Your task to perform on an android device: install app "Lyft - Rideshare, Bikes, Scooters & Transit" Image 0: 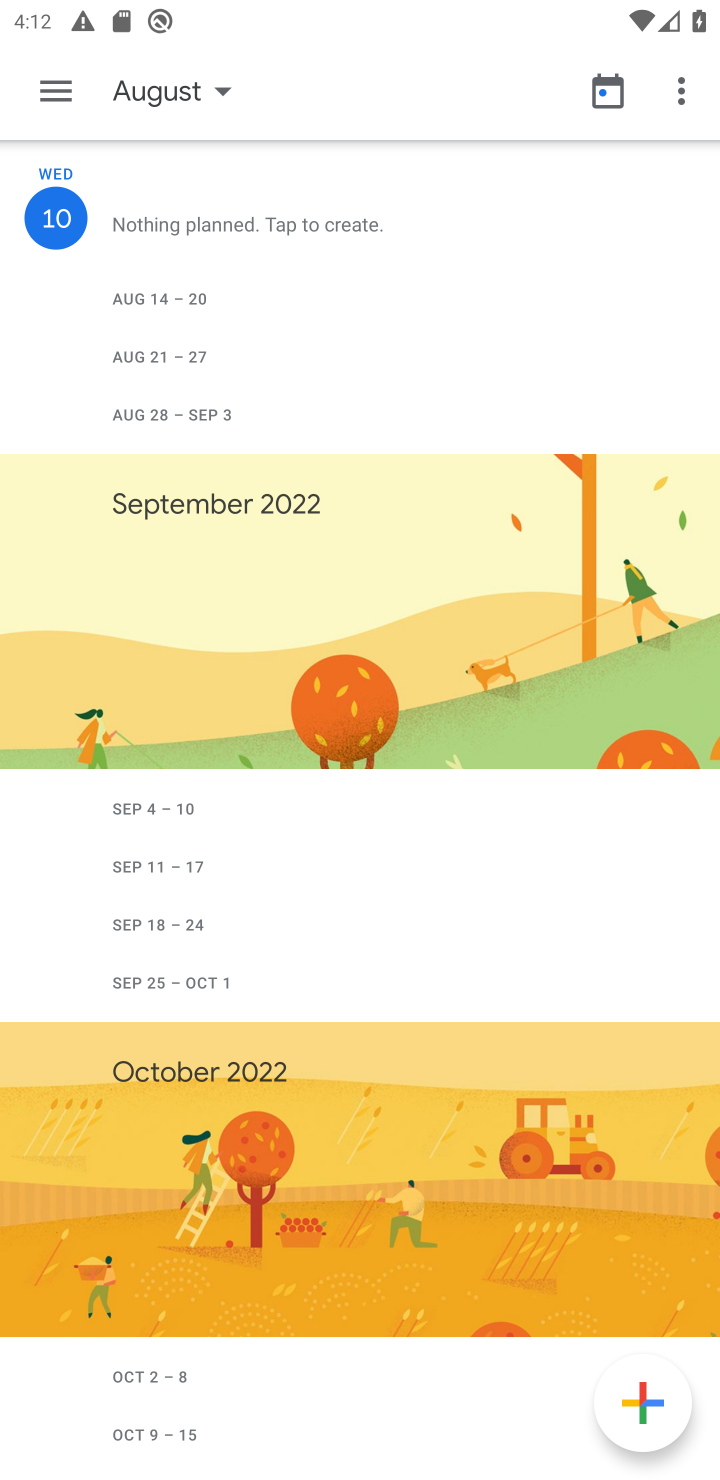
Step 0: press home button
Your task to perform on an android device: install app "Lyft - Rideshare, Bikes, Scooters & Transit" Image 1: 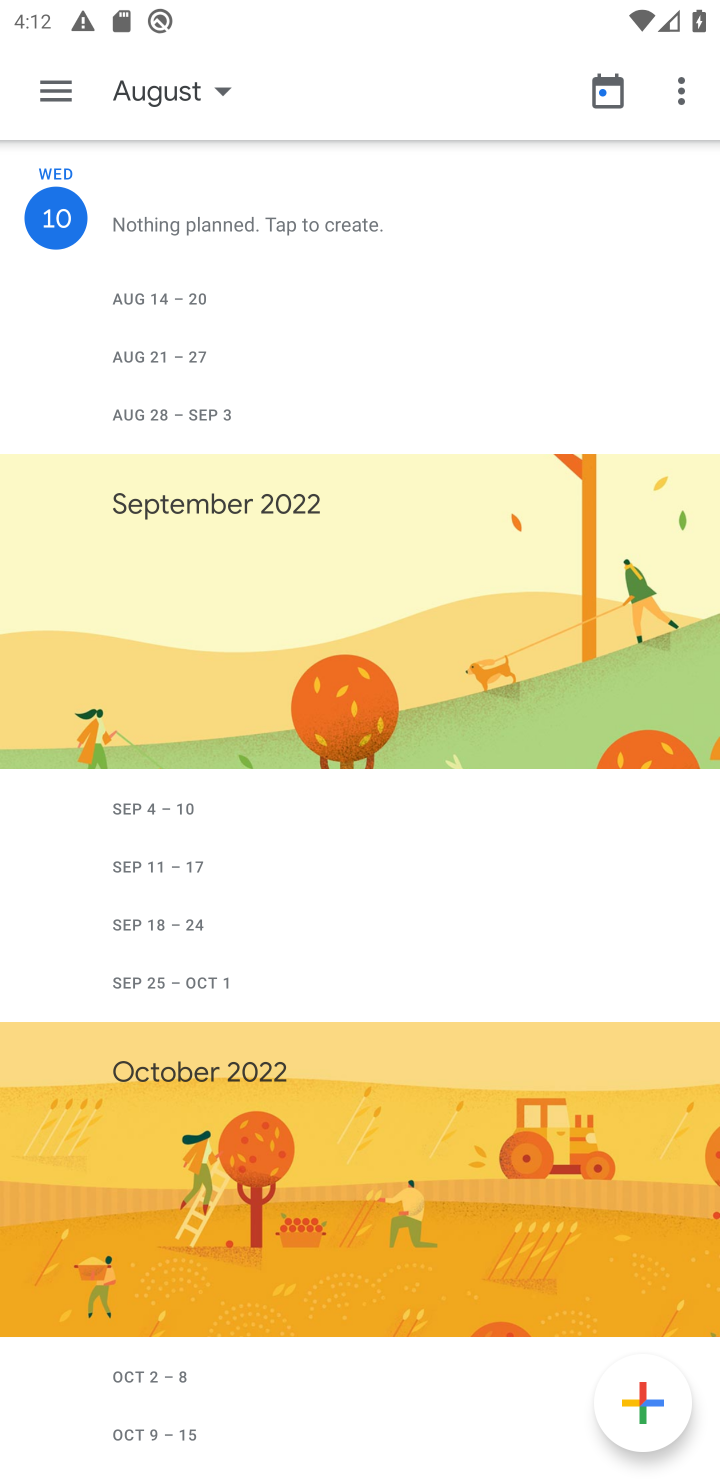
Step 1: click (30, 77)
Your task to perform on an android device: install app "Lyft - Rideshare, Bikes, Scooters & Transit" Image 2: 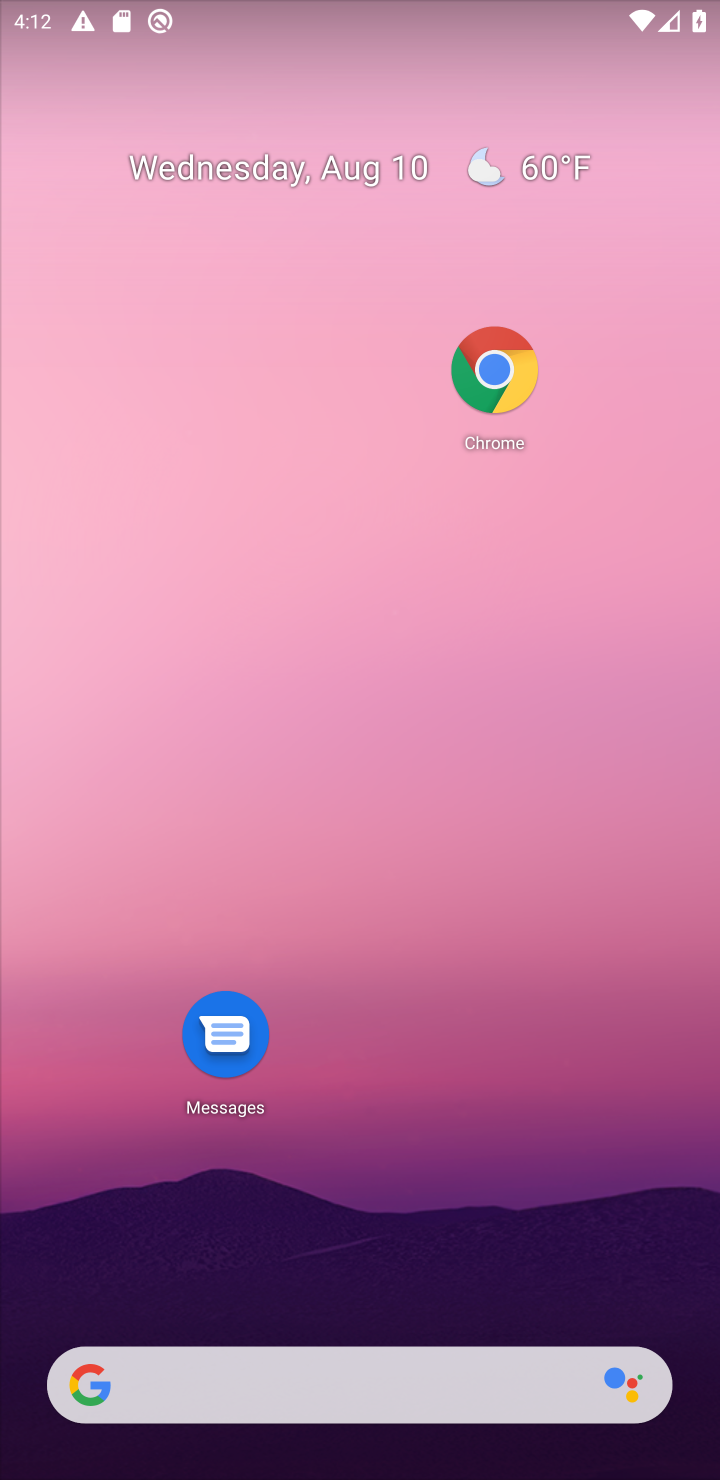
Step 2: drag from (308, 1081) to (337, 419)
Your task to perform on an android device: install app "Lyft - Rideshare, Bikes, Scooters & Transit" Image 3: 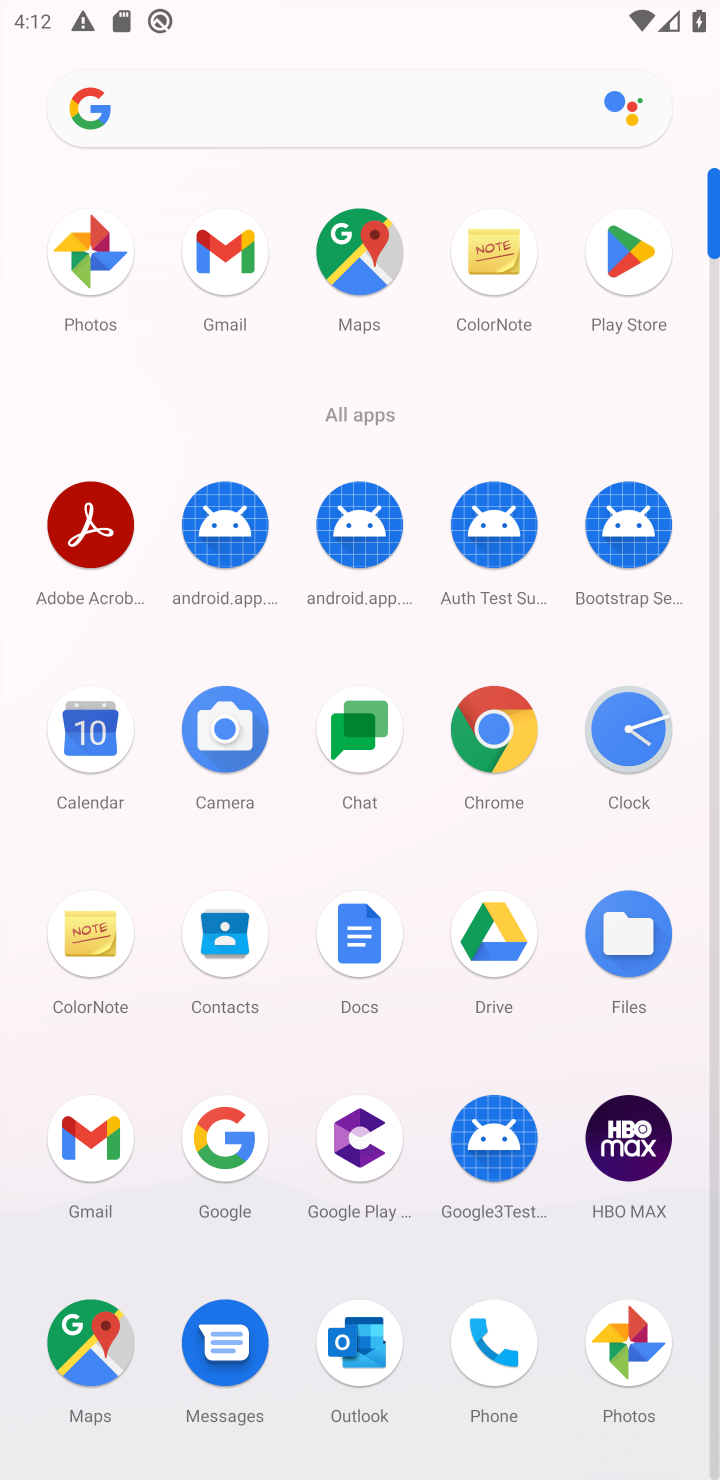
Step 3: click (618, 247)
Your task to perform on an android device: install app "Lyft - Rideshare, Bikes, Scooters & Transit" Image 4: 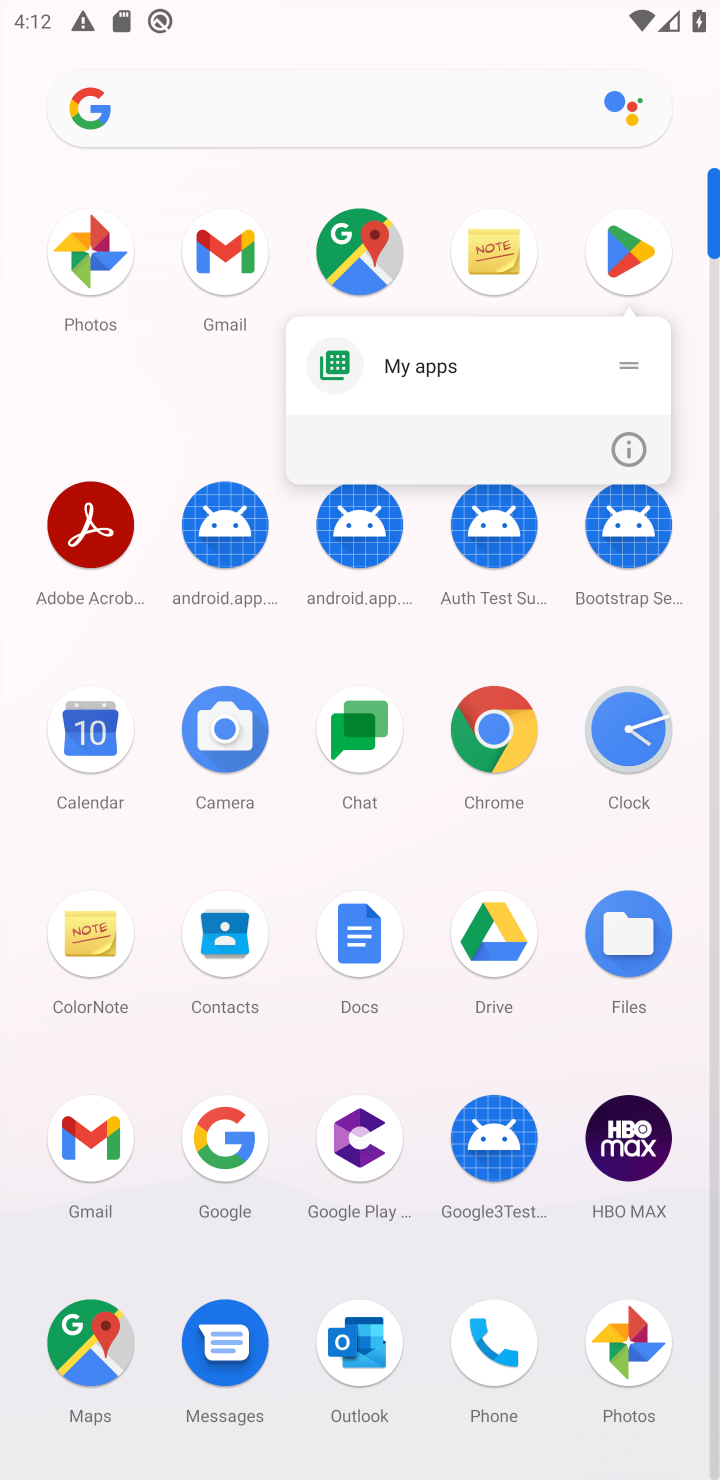
Step 4: click (642, 229)
Your task to perform on an android device: install app "Lyft - Rideshare, Bikes, Scooters & Transit" Image 5: 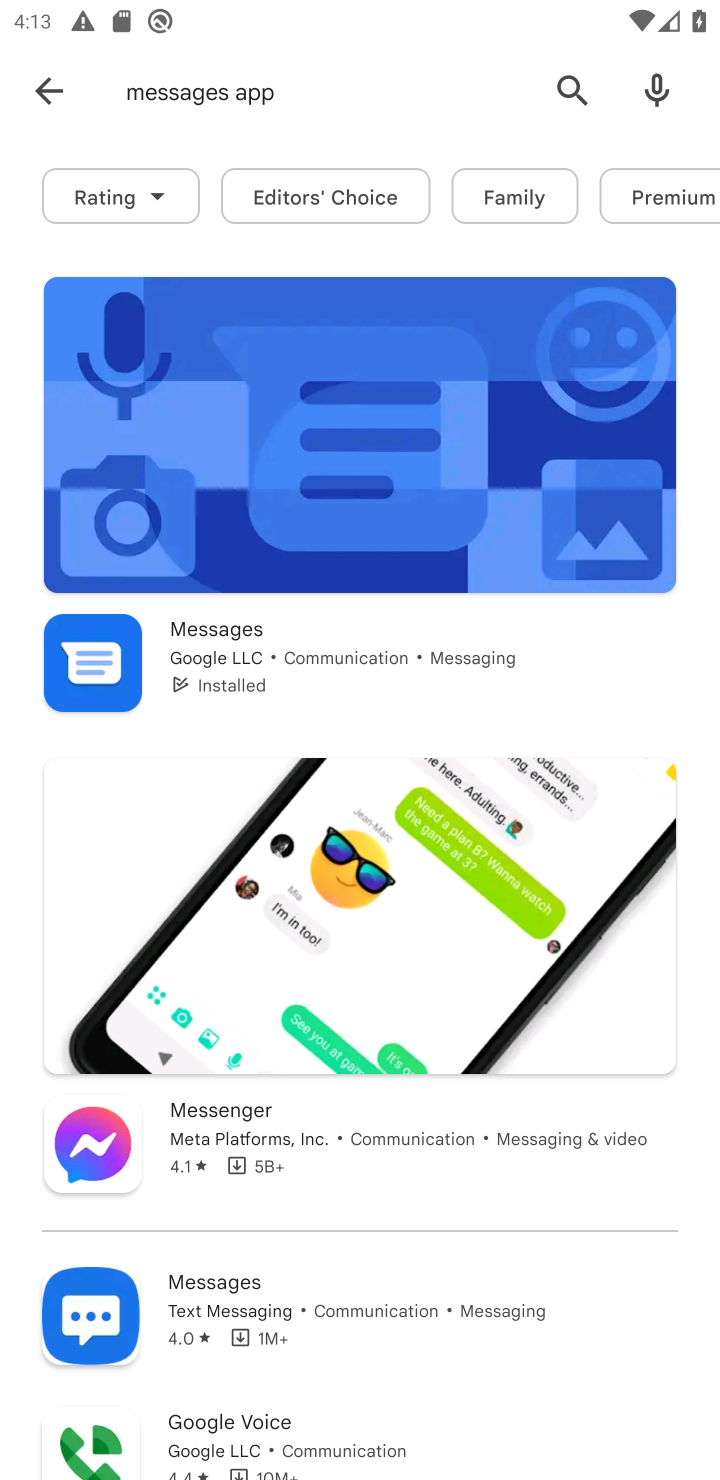
Step 5: click (28, 83)
Your task to perform on an android device: install app "Lyft - Rideshare, Bikes, Scooters & Transit" Image 6: 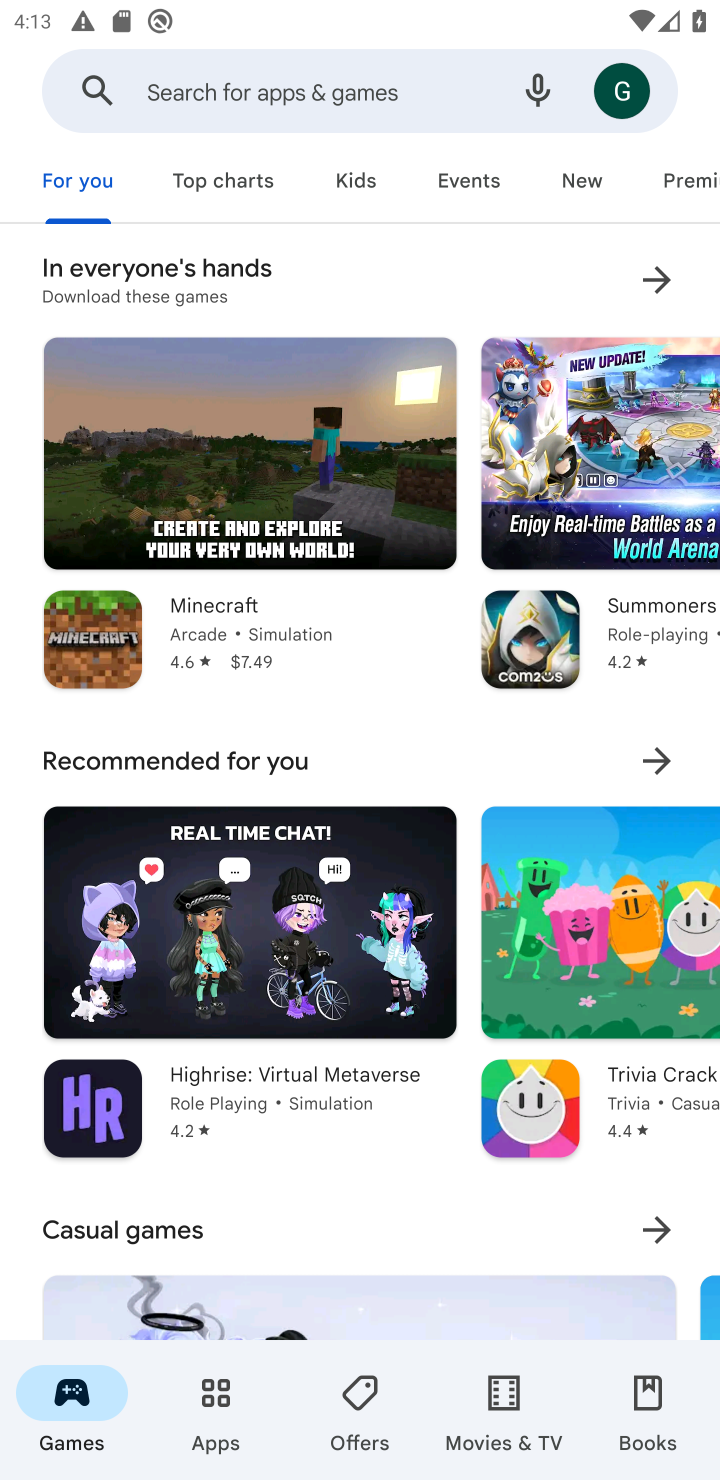
Step 6: click (152, 62)
Your task to perform on an android device: install app "Lyft - Rideshare, Bikes, Scooters & Transit" Image 7: 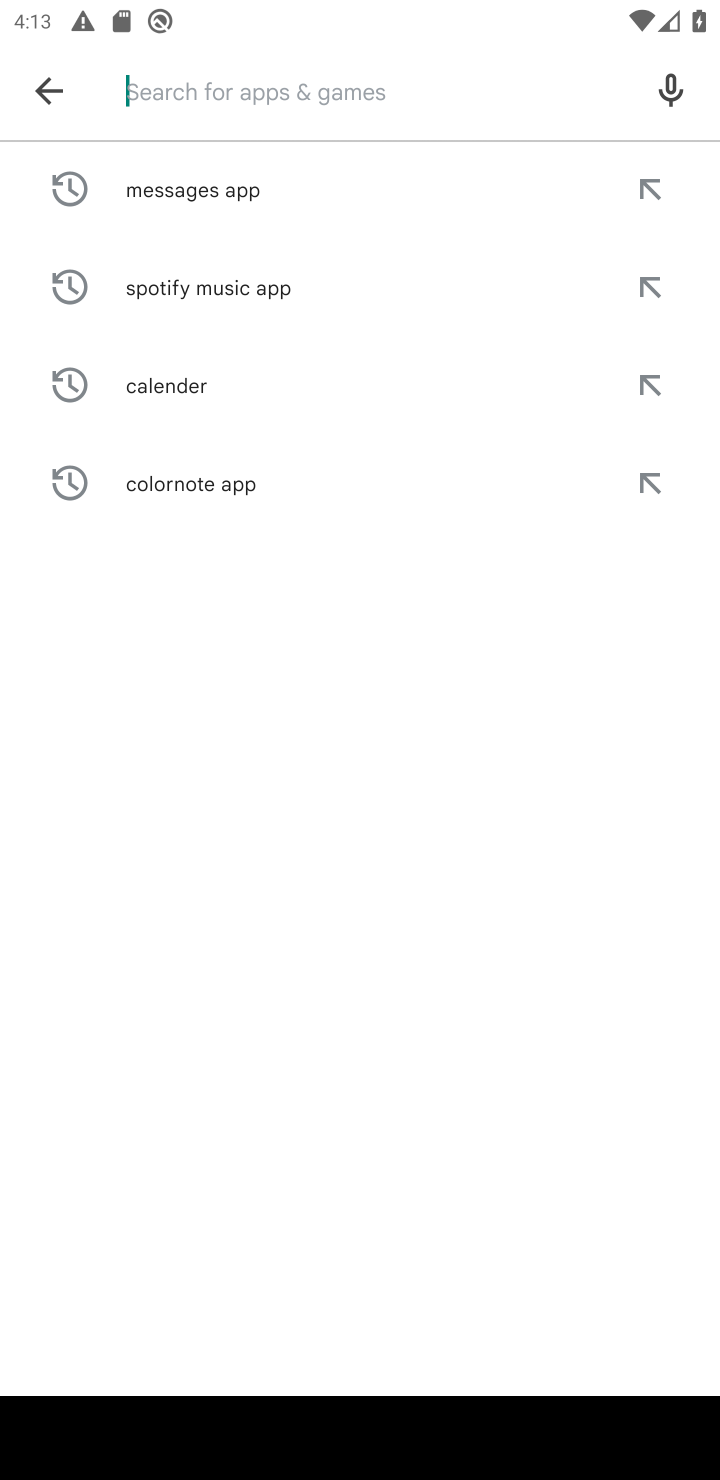
Step 7: click (350, 76)
Your task to perform on an android device: install app "Lyft - Rideshare, Bikes, Scooters & Transit" Image 8: 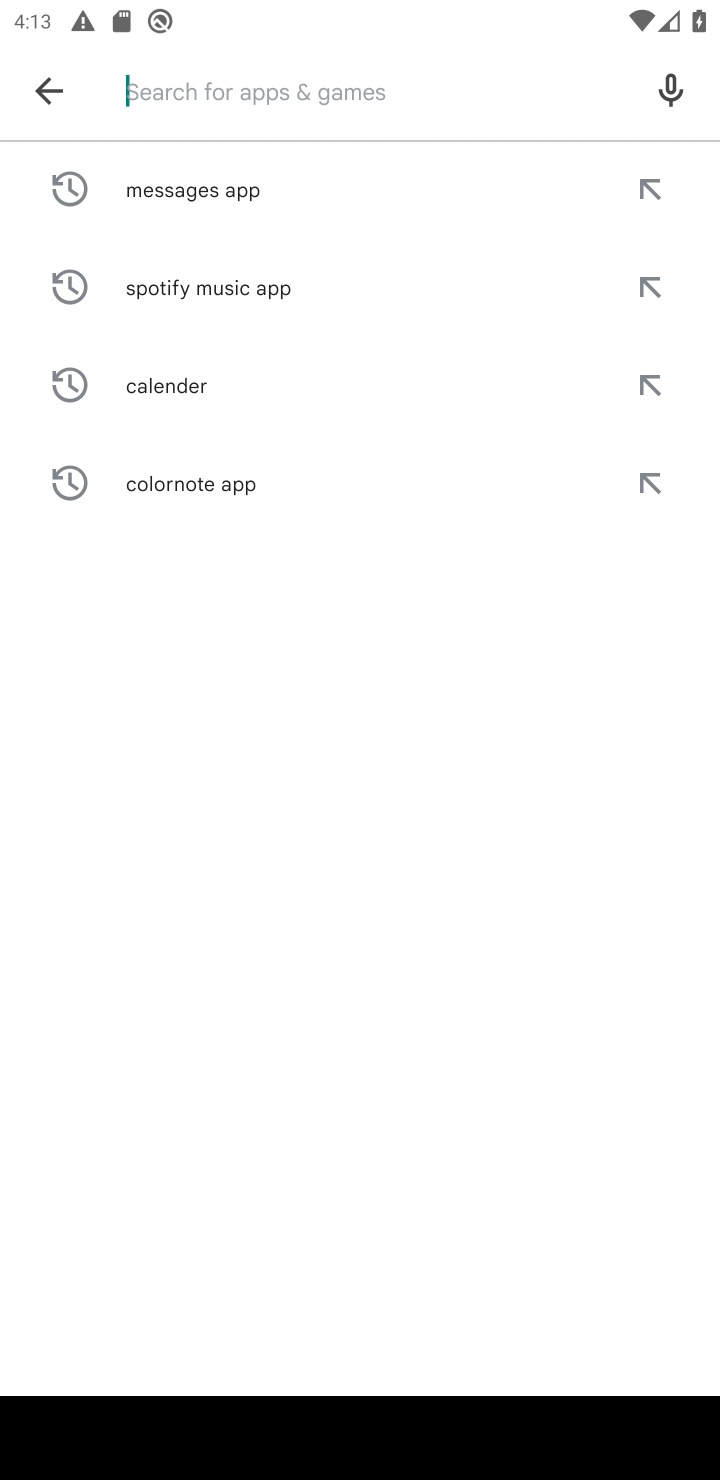
Step 8: type "lyft "
Your task to perform on an android device: install app "Lyft - Rideshare, Bikes, Scooters & Transit" Image 9: 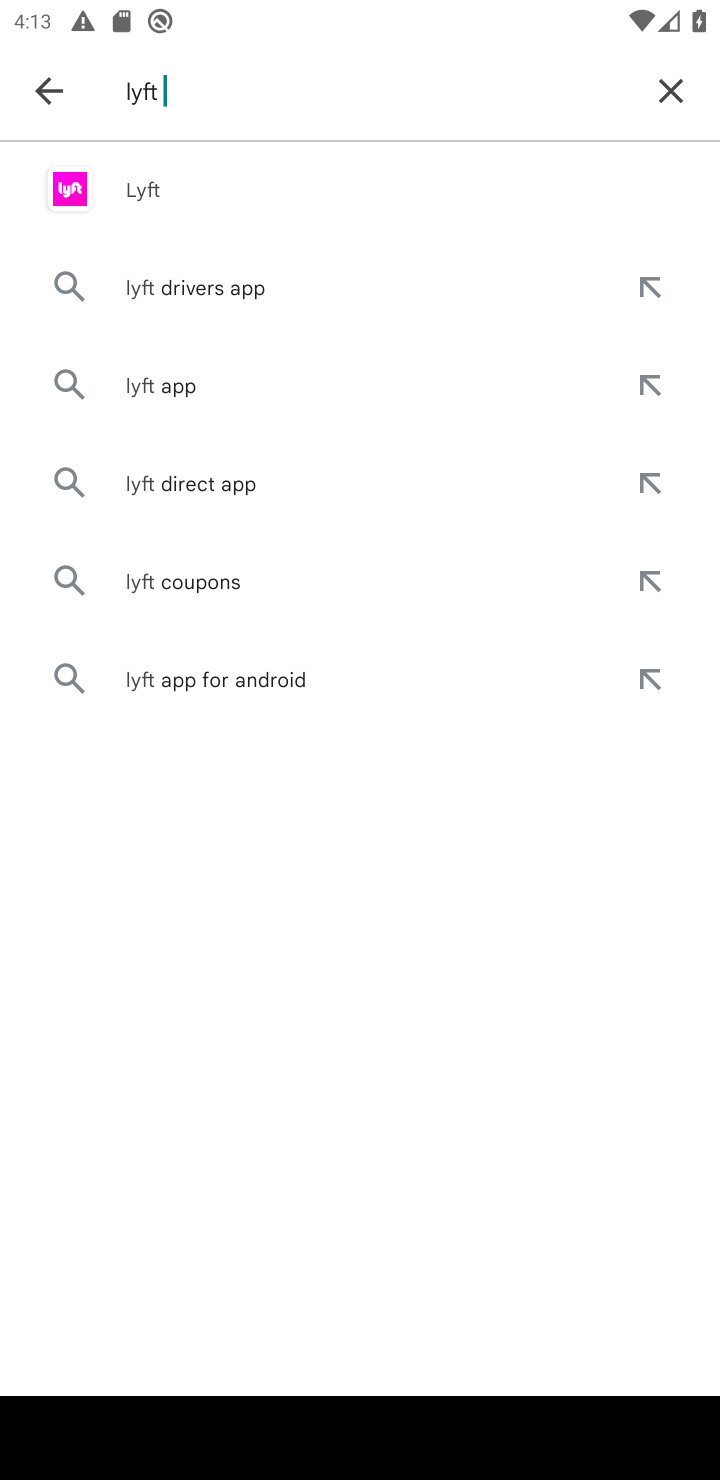
Step 9: click (203, 190)
Your task to perform on an android device: install app "Lyft - Rideshare, Bikes, Scooters & Transit" Image 10: 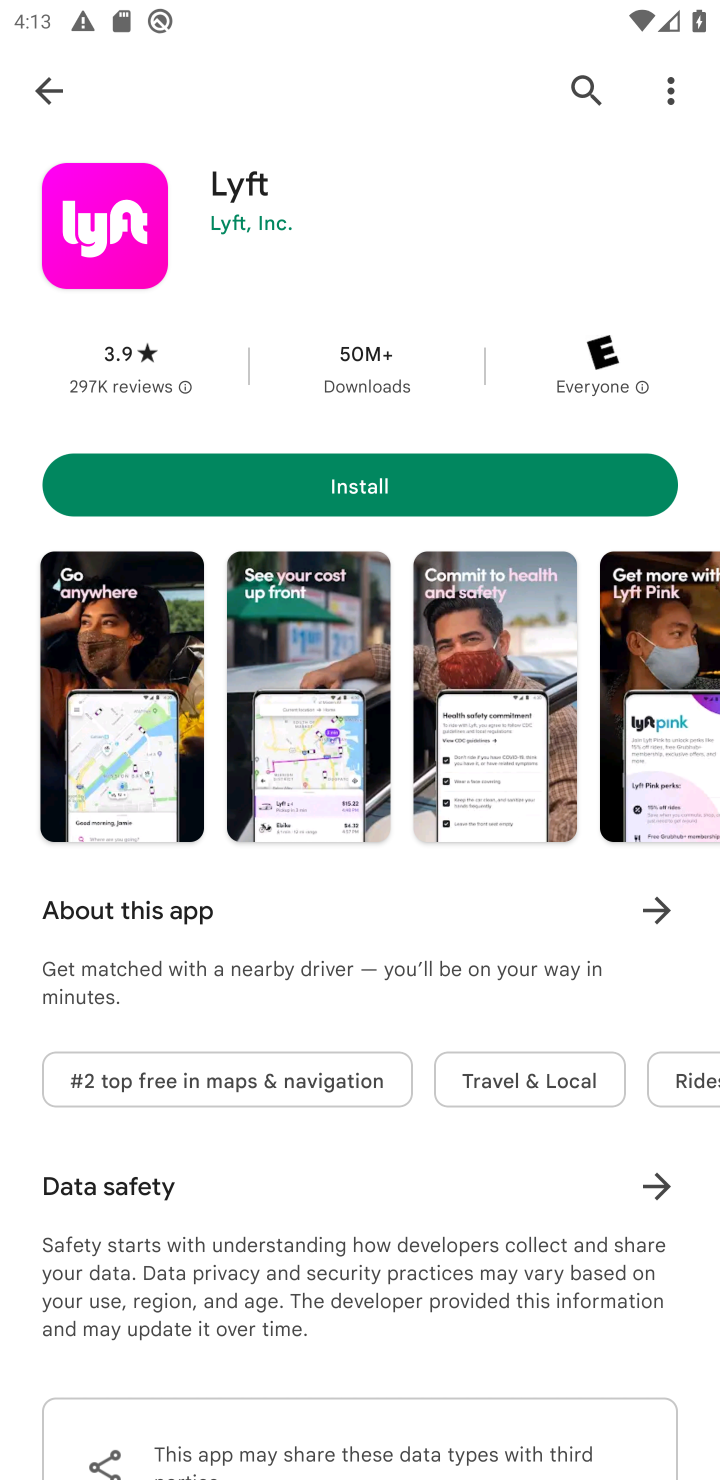
Step 10: click (306, 455)
Your task to perform on an android device: install app "Lyft - Rideshare, Bikes, Scooters & Transit" Image 11: 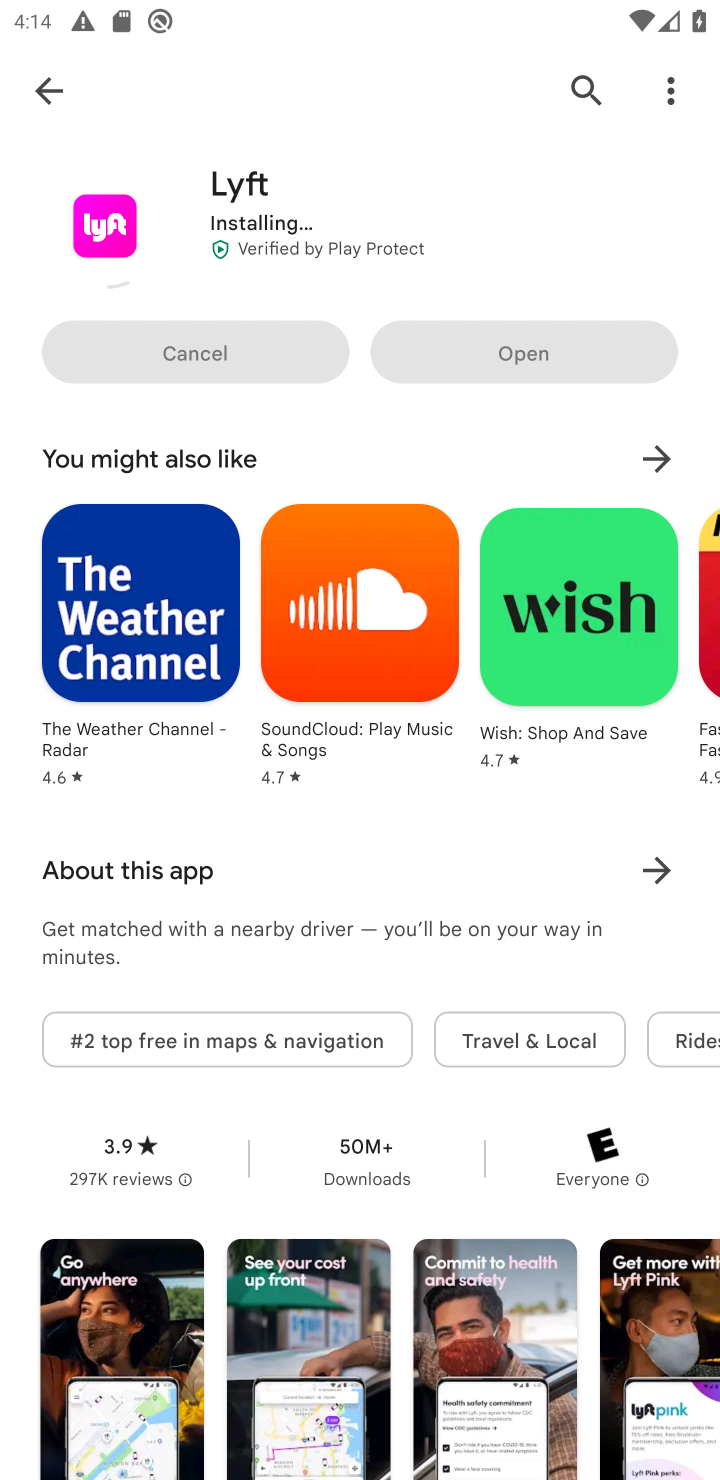
Step 11: task complete